Your task to perform on an android device: empty trash in google photos Image 0: 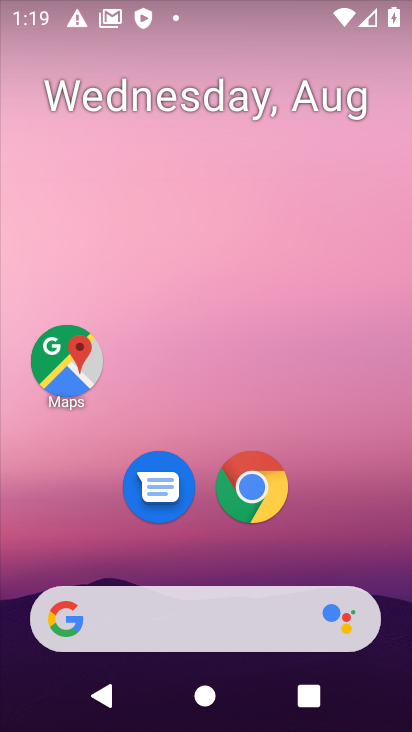
Step 0: drag from (232, 335) to (237, 233)
Your task to perform on an android device: empty trash in google photos Image 1: 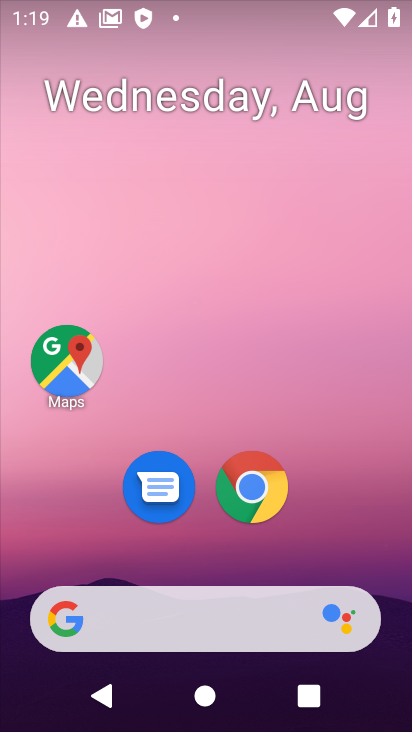
Step 1: drag from (204, 559) to (201, 137)
Your task to perform on an android device: empty trash in google photos Image 2: 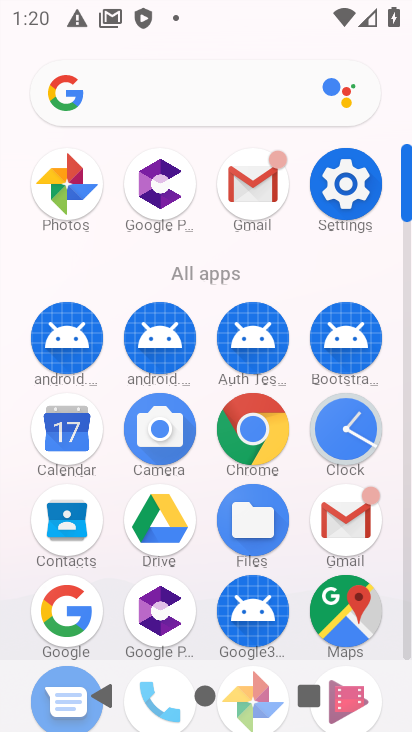
Step 2: click (62, 191)
Your task to perform on an android device: empty trash in google photos Image 3: 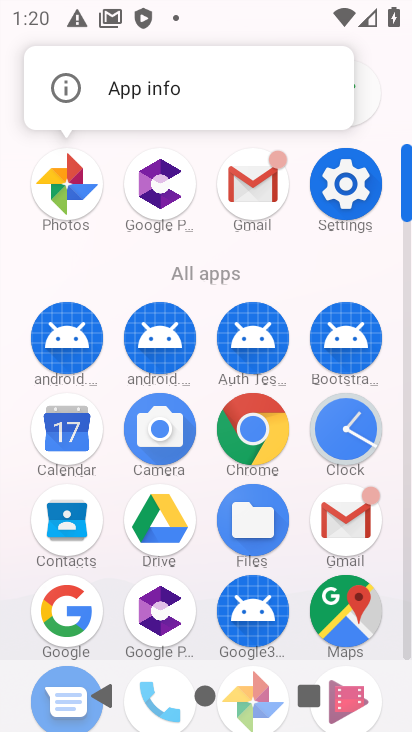
Step 3: click (62, 191)
Your task to perform on an android device: empty trash in google photos Image 4: 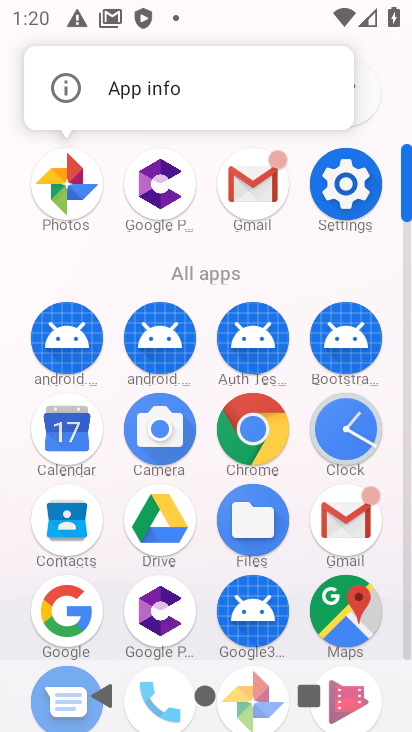
Step 4: click (62, 191)
Your task to perform on an android device: empty trash in google photos Image 5: 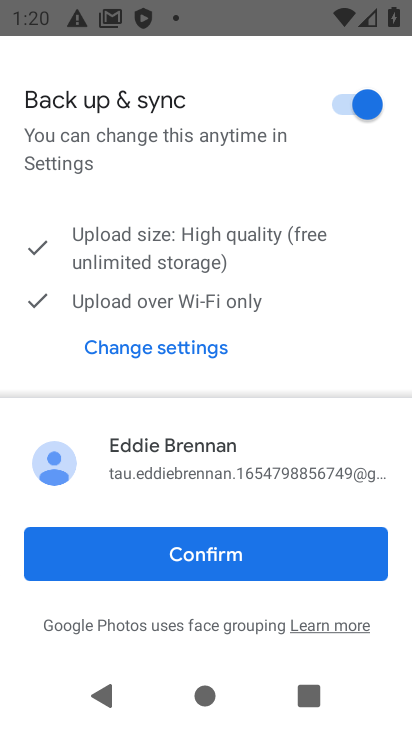
Step 5: click (176, 566)
Your task to perform on an android device: empty trash in google photos Image 6: 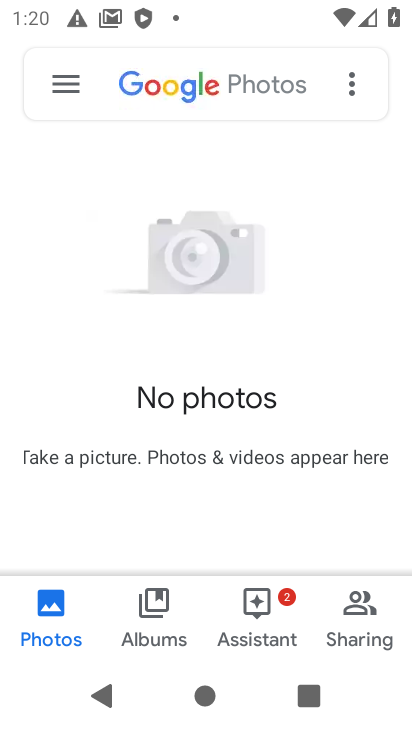
Step 6: click (66, 82)
Your task to perform on an android device: empty trash in google photos Image 7: 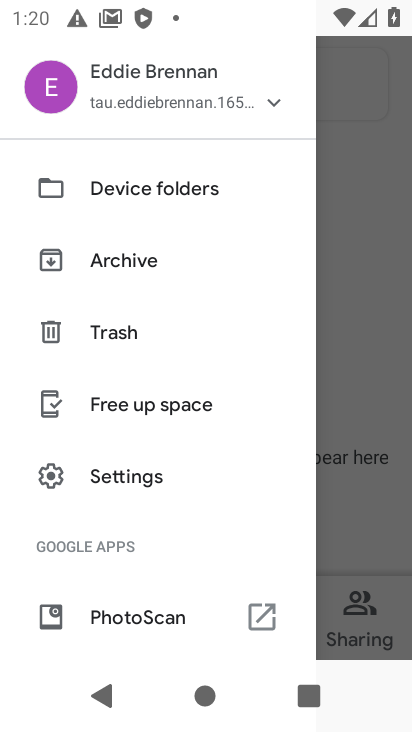
Step 7: click (121, 326)
Your task to perform on an android device: empty trash in google photos Image 8: 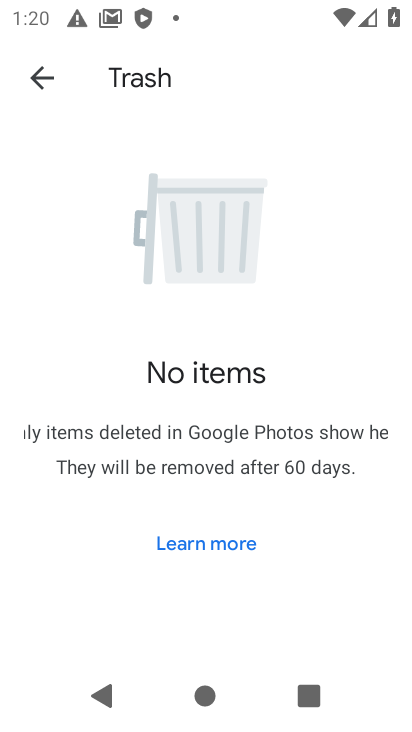
Step 8: task complete